Your task to perform on an android device: open chrome and create a bookmark for the current page Image 0: 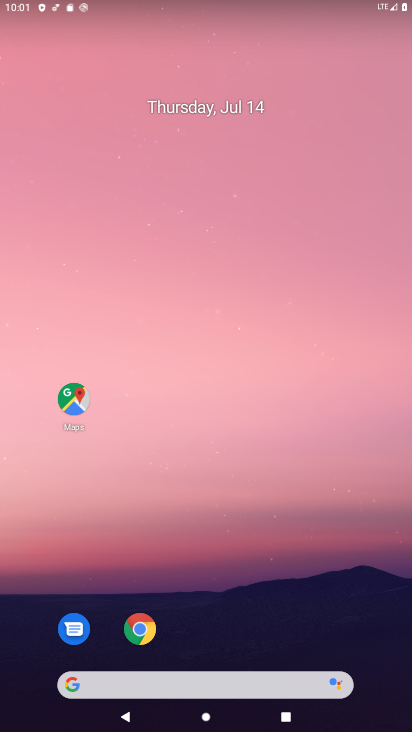
Step 0: click (141, 634)
Your task to perform on an android device: open chrome and create a bookmark for the current page Image 1: 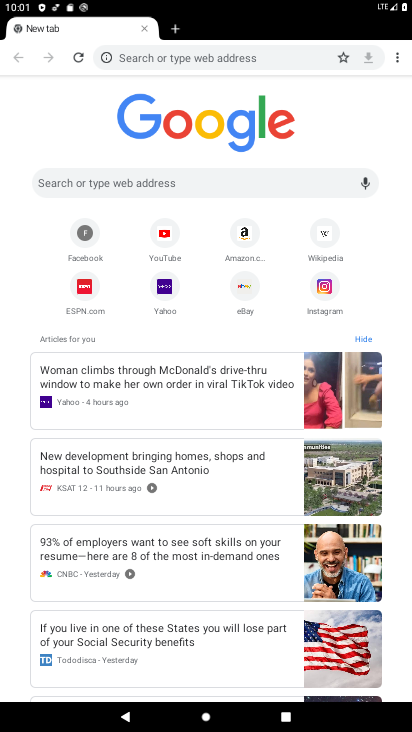
Step 1: click (365, 66)
Your task to perform on an android device: open chrome and create a bookmark for the current page Image 2: 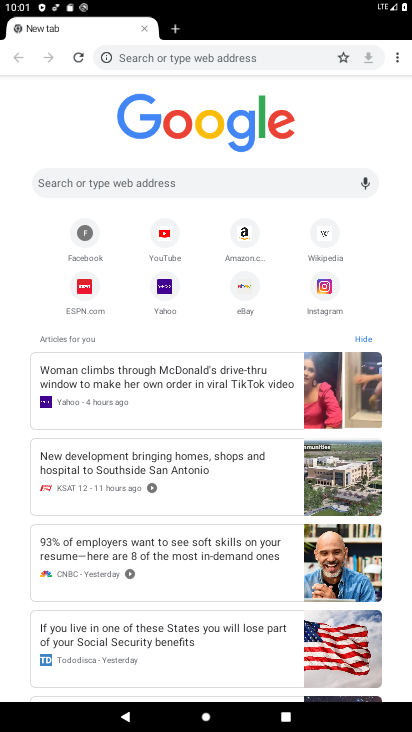
Step 2: click (349, 56)
Your task to perform on an android device: open chrome and create a bookmark for the current page Image 3: 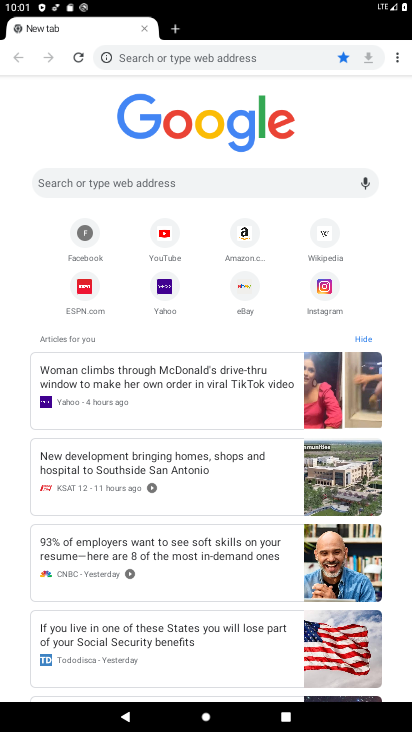
Step 3: task complete